Your task to perform on an android device: Open Reddit.com Image 0: 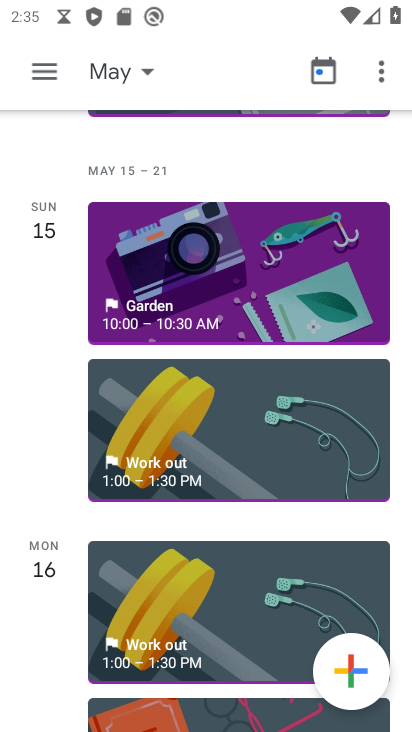
Step 0: press home button
Your task to perform on an android device: Open Reddit.com Image 1: 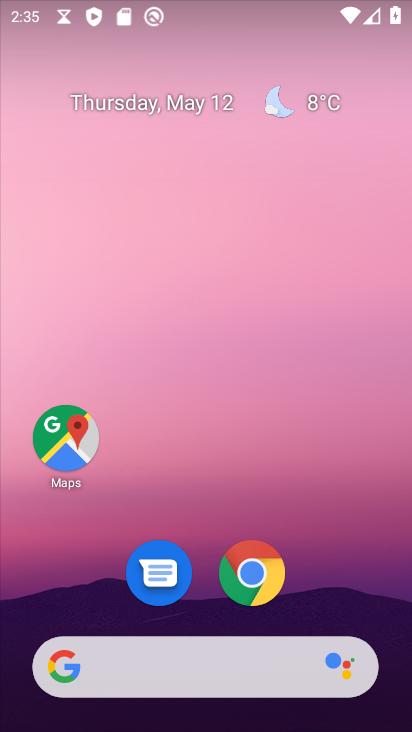
Step 1: click (267, 557)
Your task to perform on an android device: Open Reddit.com Image 2: 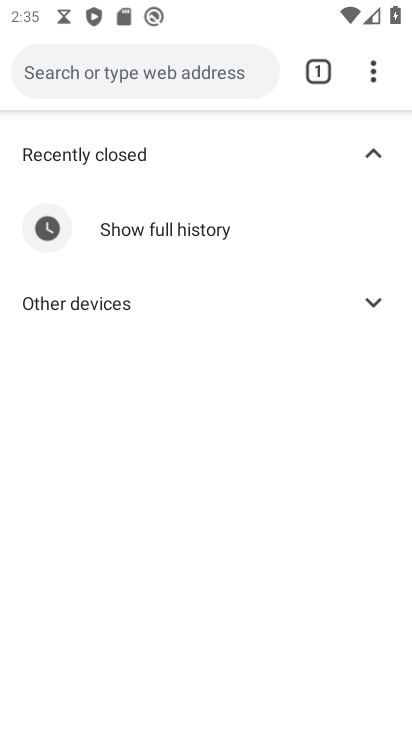
Step 2: click (217, 73)
Your task to perform on an android device: Open Reddit.com Image 3: 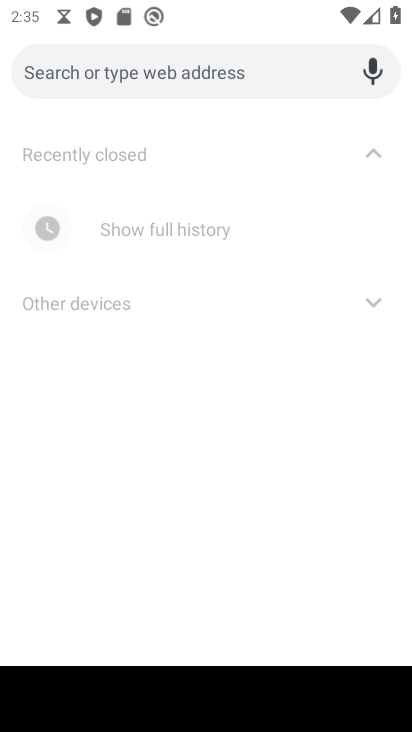
Step 3: type "Reddit.com"
Your task to perform on an android device: Open Reddit.com Image 4: 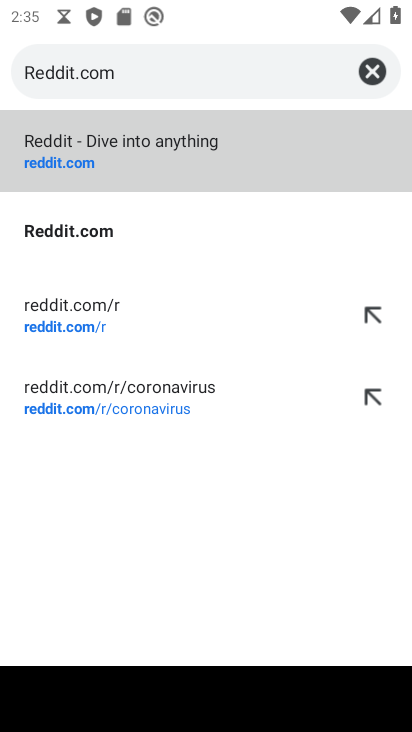
Step 4: click (79, 157)
Your task to perform on an android device: Open Reddit.com Image 5: 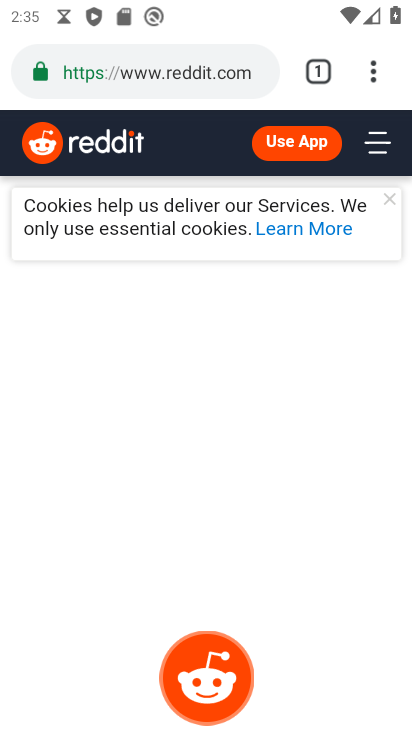
Step 5: task complete